Your task to perform on an android device: Go to battery settings Image 0: 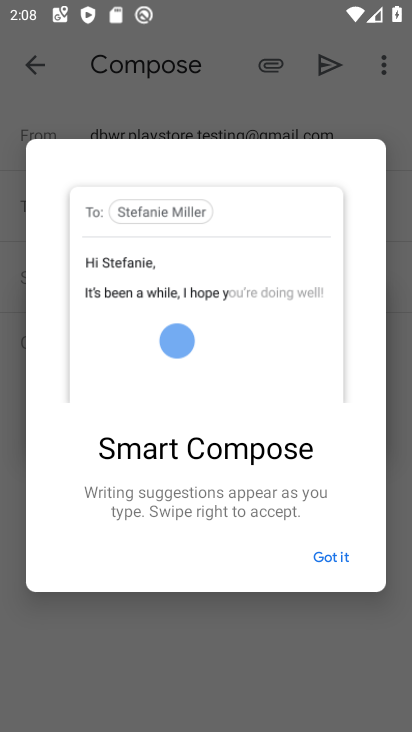
Step 0: press home button
Your task to perform on an android device: Go to battery settings Image 1: 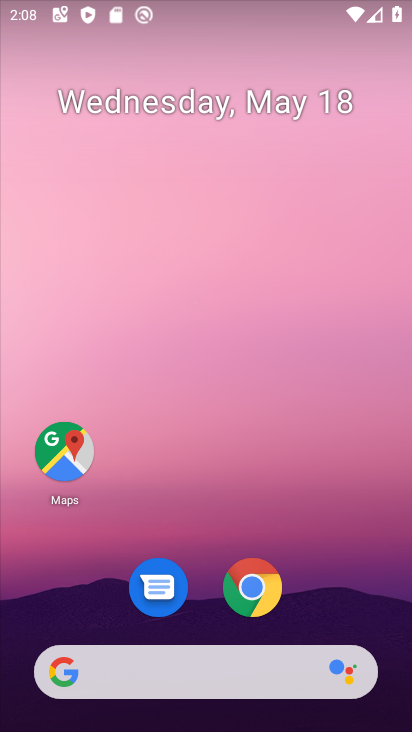
Step 1: drag from (352, 628) to (397, 5)
Your task to perform on an android device: Go to battery settings Image 2: 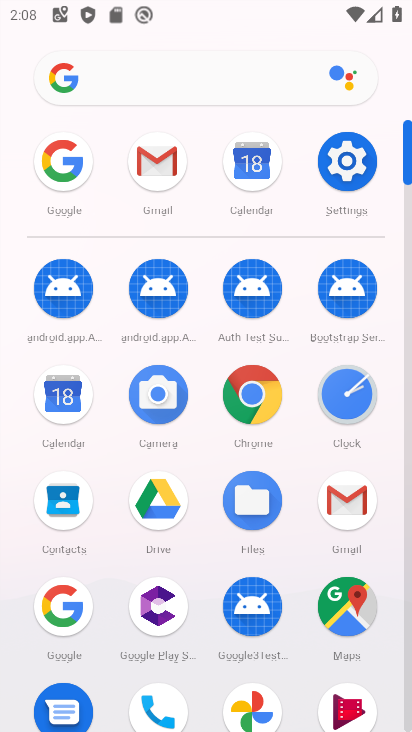
Step 2: click (344, 164)
Your task to perform on an android device: Go to battery settings Image 3: 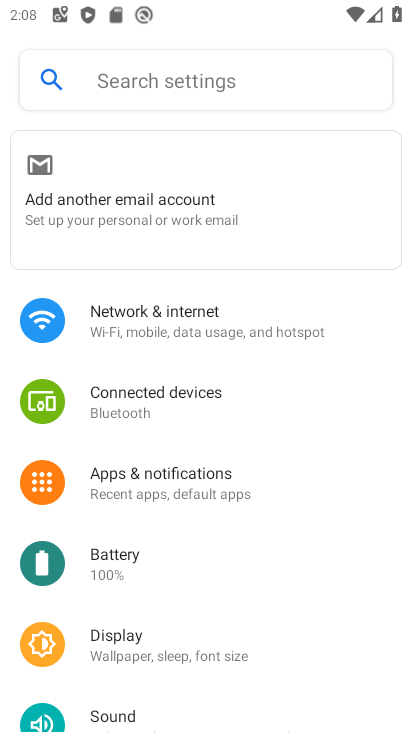
Step 3: click (113, 564)
Your task to perform on an android device: Go to battery settings Image 4: 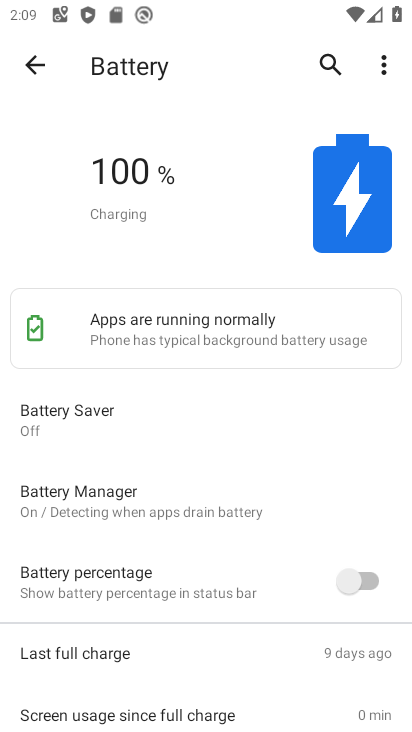
Step 4: task complete